Your task to perform on an android device: Play the last video I watched on Youtube Image 0: 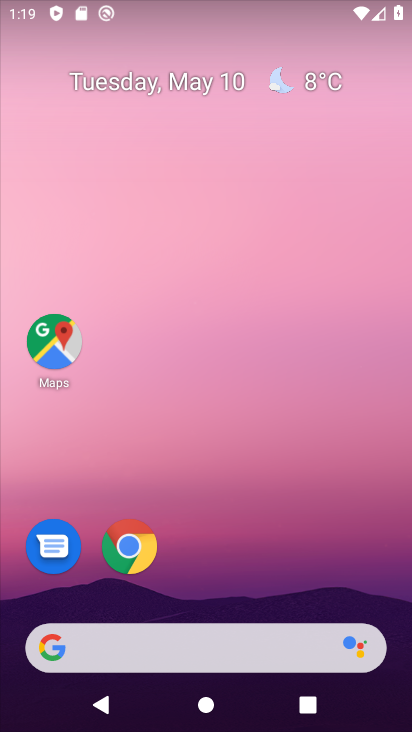
Step 0: drag from (397, 658) to (268, 60)
Your task to perform on an android device: Play the last video I watched on Youtube Image 1: 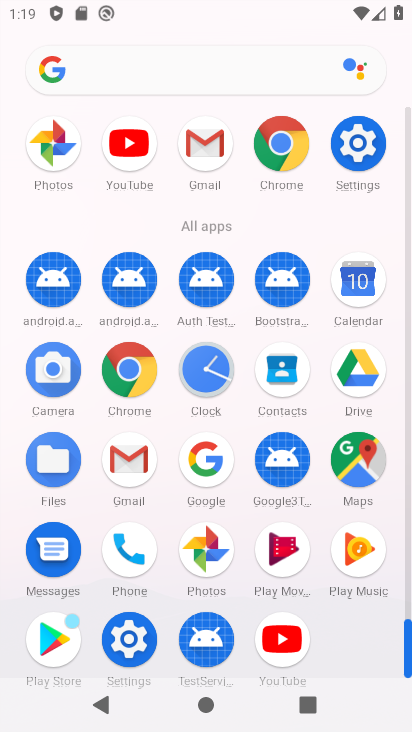
Step 1: click (283, 639)
Your task to perform on an android device: Play the last video I watched on Youtube Image 2: 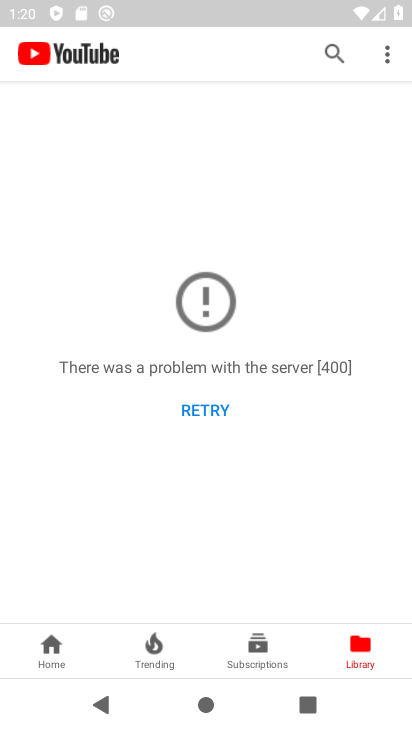
Step 2: press back button
Your task to perform on an android device: Play the last video I watched on Youtube Image 3: 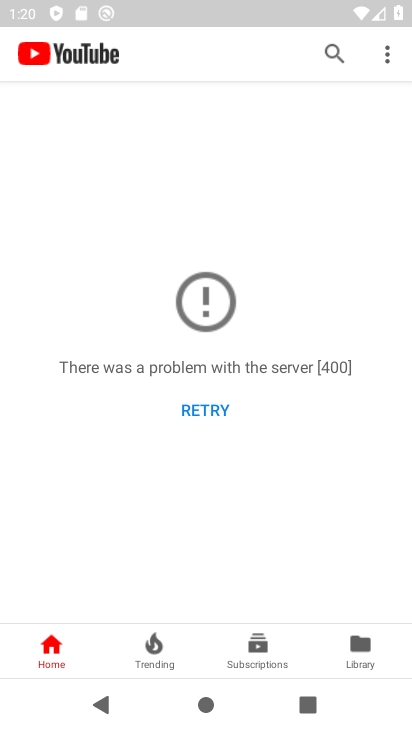
Step 3: press home button
Your task to perform on an android device: Play the last video I watched on Youtube Image 4: 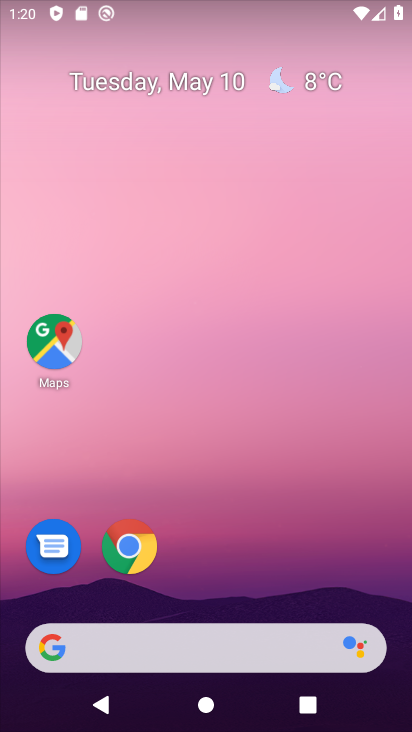
Step 4: click (349, 585)
Your task to perform on an android device: Play the last video I watched on Youtube Image 5: 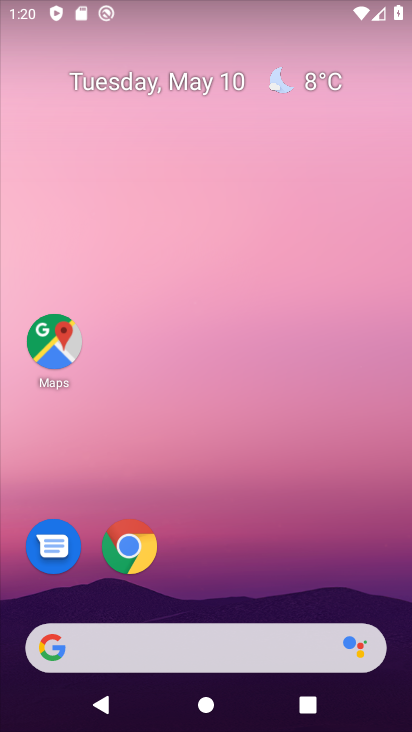
Step 5: drag from (349, 585) to (301, 79)
Your task to perform on an android device: Play the last video I watched on Youtube Image 6: 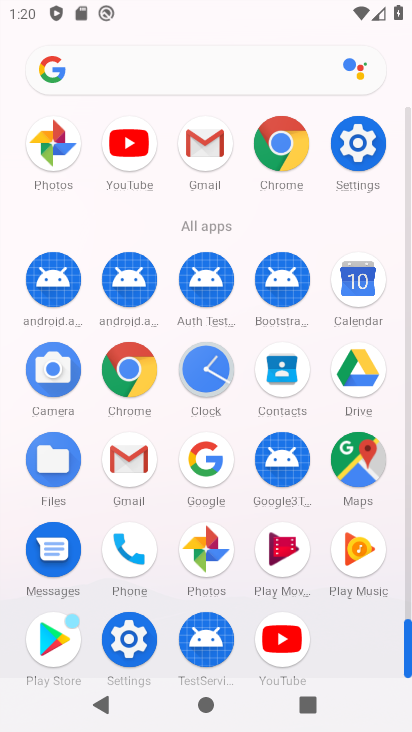
Step 6: click (129, 637)
Your task to perform on an android device: Play the last video I watched on Youtube Image 7: 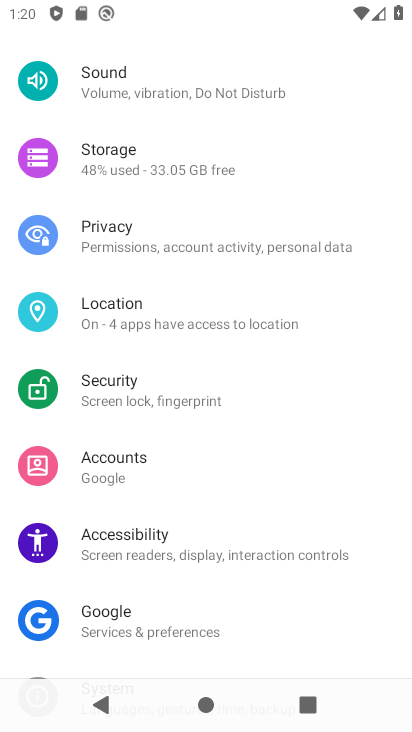
Step 7: drag from (349, 143) to (329, 593)
Your task to perform on an android device: Play the last video I watched on Youtube Image 8: 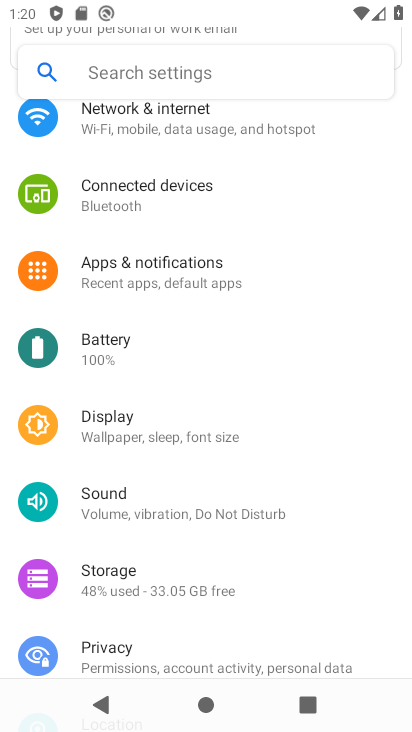
Step 8: click (116, 113)
Your task to perform on an android device: Play the last video I watched on Youtube Image 9: 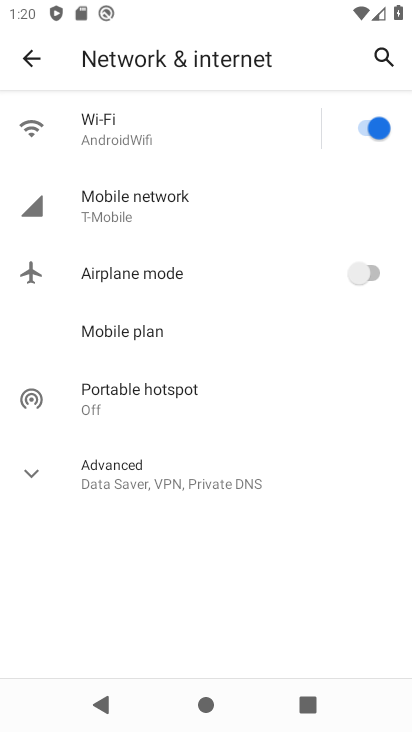
Step 9: press back button
Your task to perform on an android device: Play the last video I watched on Youtube Image 10: 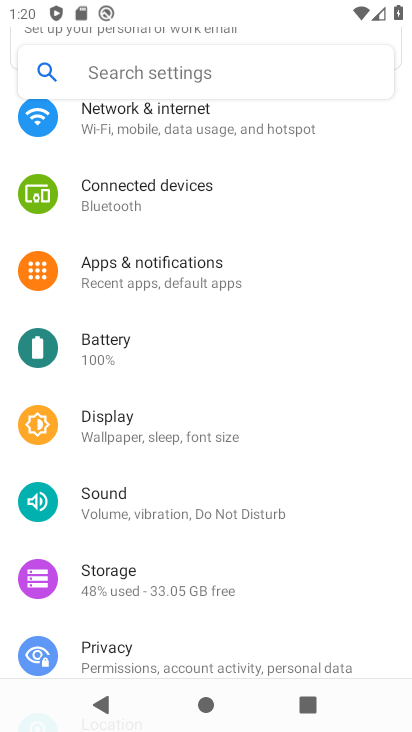
Step 10: press back button
Your task to perform on an android device: Play the last video I watched on Youtube Image 11: 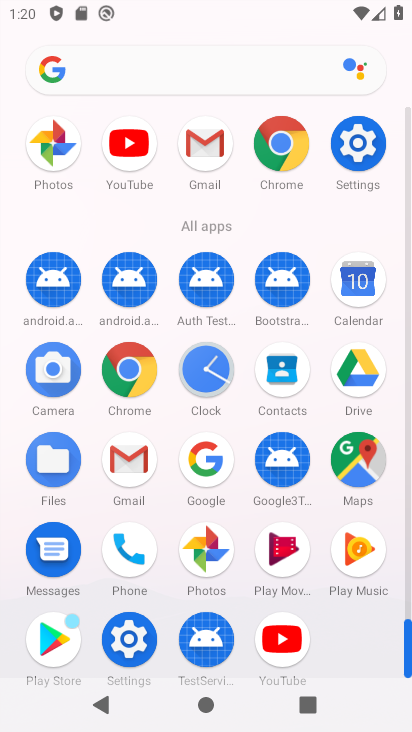
Step 11: click (281, 635)
Your task to perform on an android device: Play the last video I watched on Youtube Image 12: 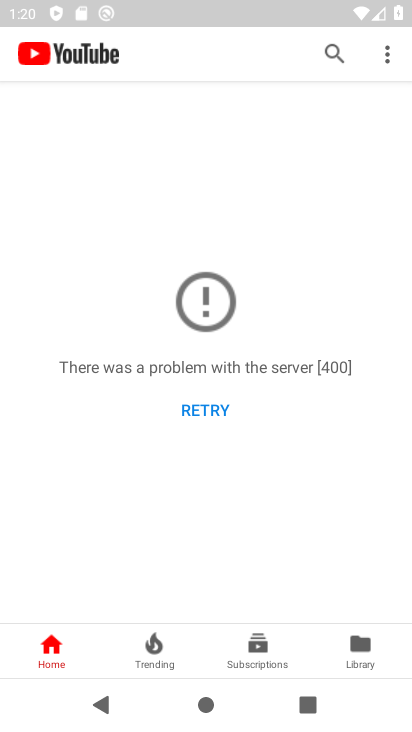
Step 12: click (208, 397)
Your task to perform on an android device: Play the last video I watched on Youtube Image 13: 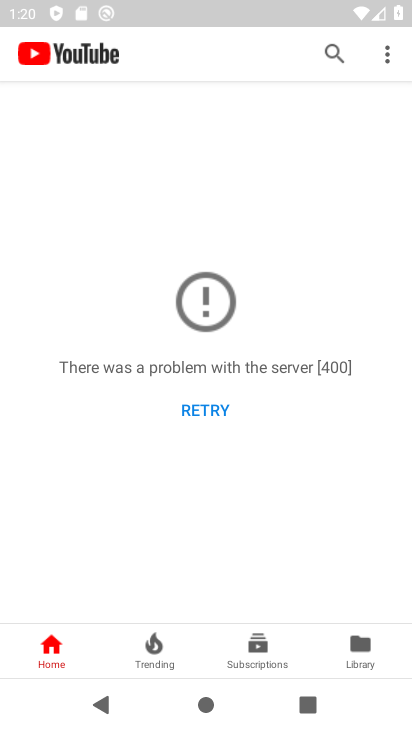
Step 13: click (206, 410)
Your task to perform on an android device: Play the last video I watched on Youtube Image 14: 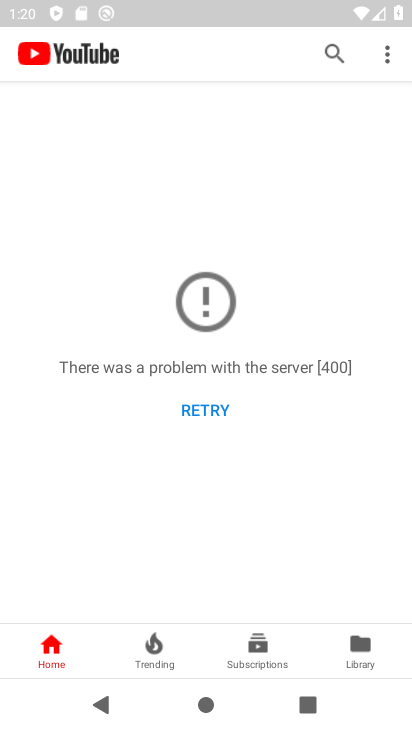
Step 14: click (368, 642)
Your task to perform on an android device: Play the last video I watched on Youtube Image 15: 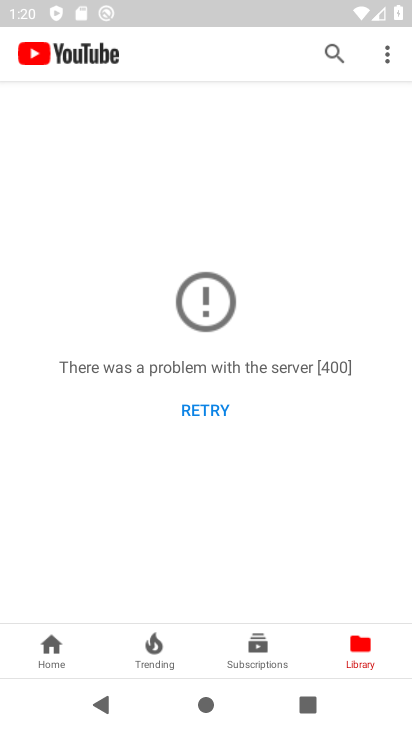
Step 15: task complete